Your task to perform on an android device: What's the weather going to be tomorrow? Image 0: 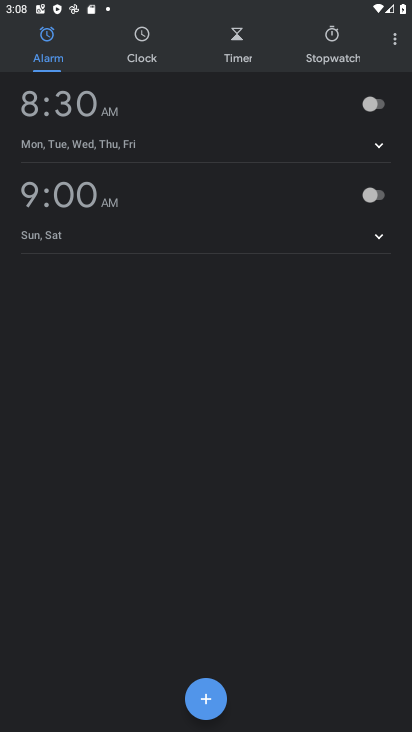
Step 0: press home button
Your task to perform on an android device: What's the weather going to be tomorrow? Image 1: 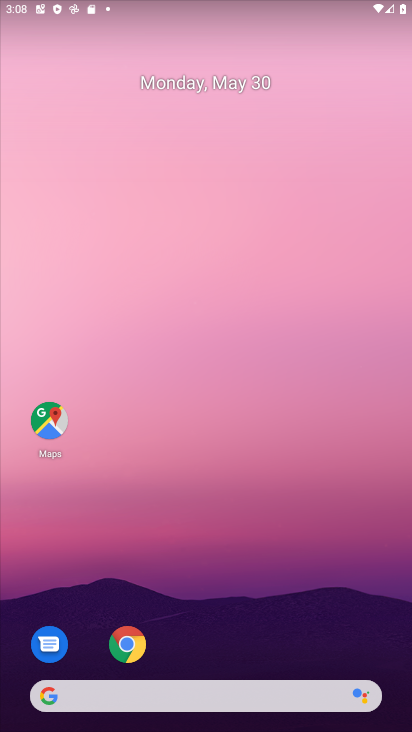
Step 1: drag from (287, 630) to (196, 33)
Your task to perform on an android device: What's the weather going to be tomorrow? Image 2: 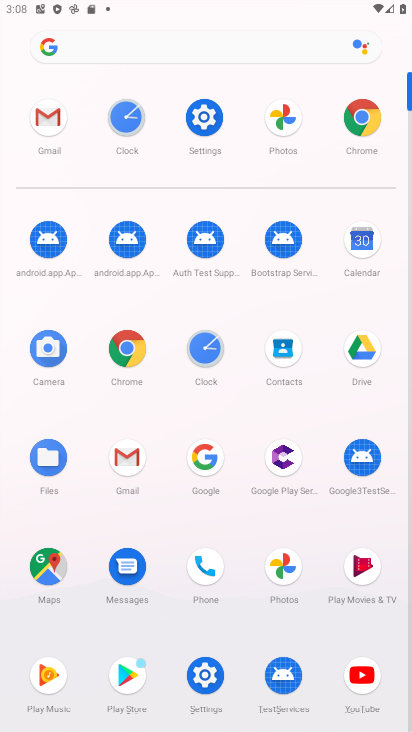
Step 2: click (164, 53)
Your task to perform on an android device: What's the weather going to be tomorrow? Image 3: 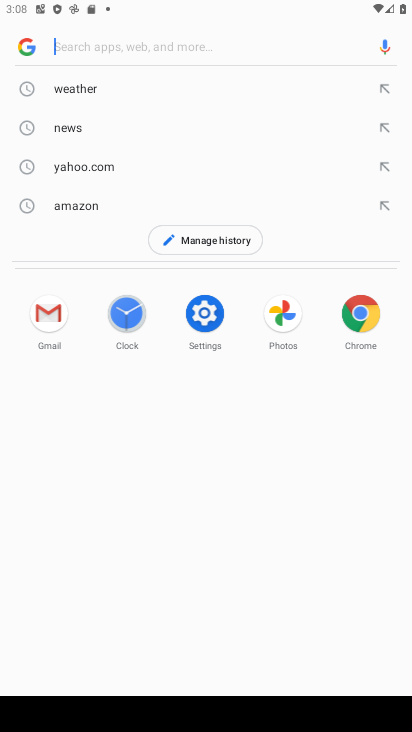
Step 3: click (152, 92)
Your task to perform on an android device: What's the weather going to be tomorrow? Image 4: 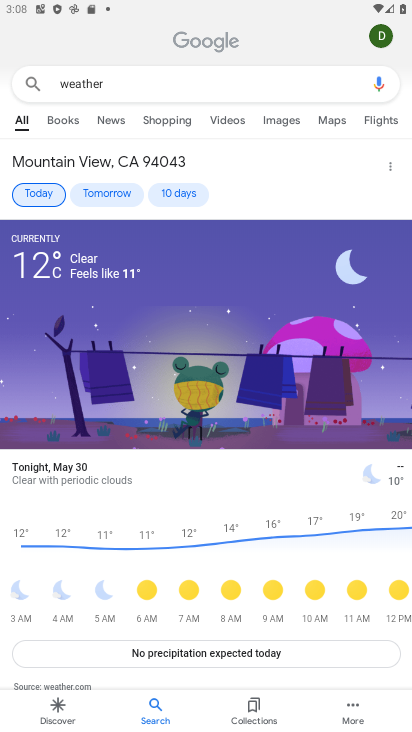
Step 4: click (113, 196)
Your task to perform on an android device: What's the weather going to be tomorrow? Image 5: 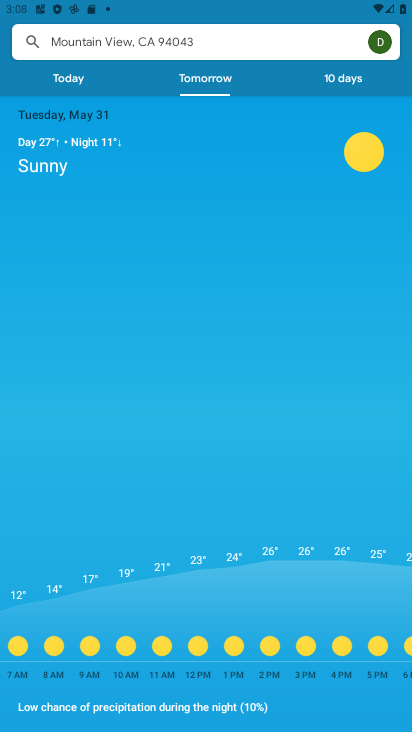
Step 5: task complete